Your task to perform on an android device: Open internet settings Image 0: 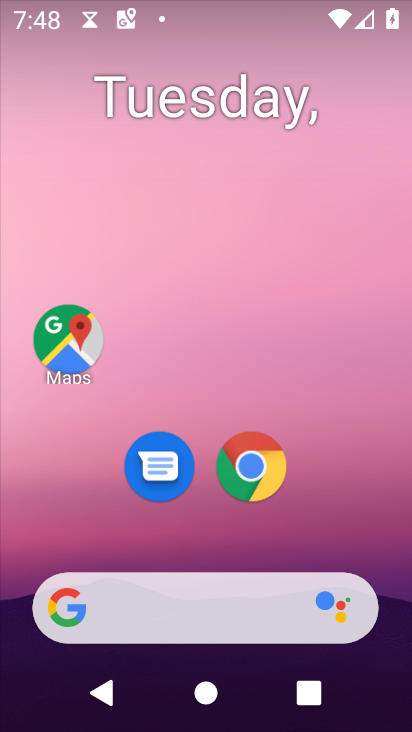
Step 0: press home button
Your task to perform on an android device: Open internet settings Image 1: 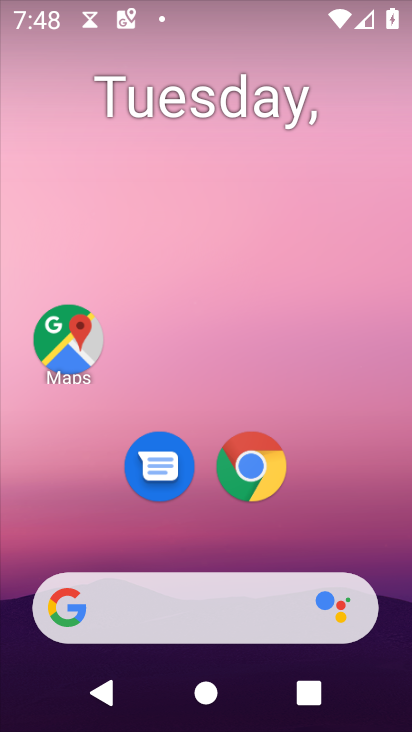
Step 1: drag from (211, 542) to (209, 38)
Your task to perform on an android device: Open internet settings Image 2: 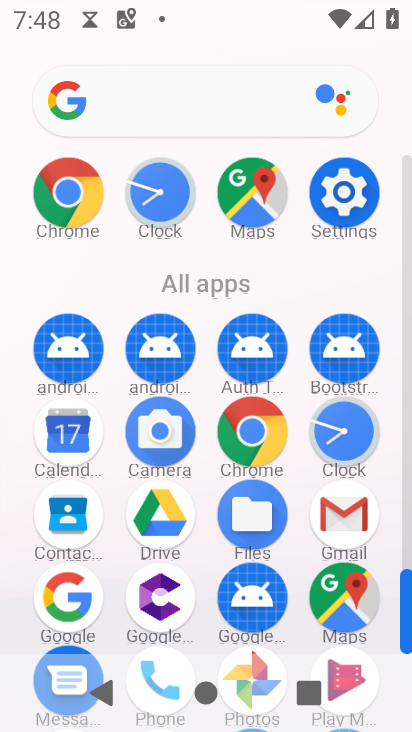
Step 2: click (344, 184)
Your task to perform on an android device: Open internet settings Image 3: 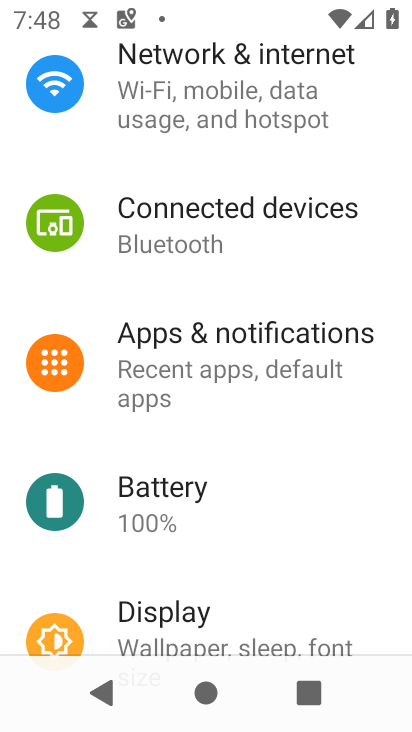
Step 3: click (201, 109)
Your task to perform on an android device: Open internet settings Image 4: 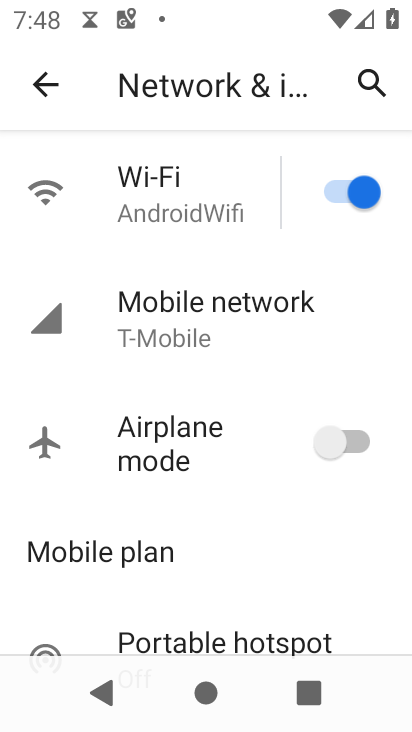
Step 4: drag from (210, 577) to (218, 103)
Your task to perform on an android device: Open internet settings Image 5: 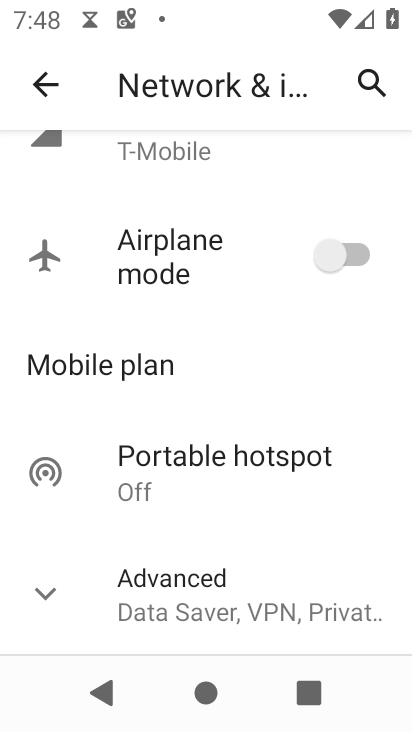
Step 5: click (57, 601)
Your task to perform on an android device: Open internet settings Image 6: 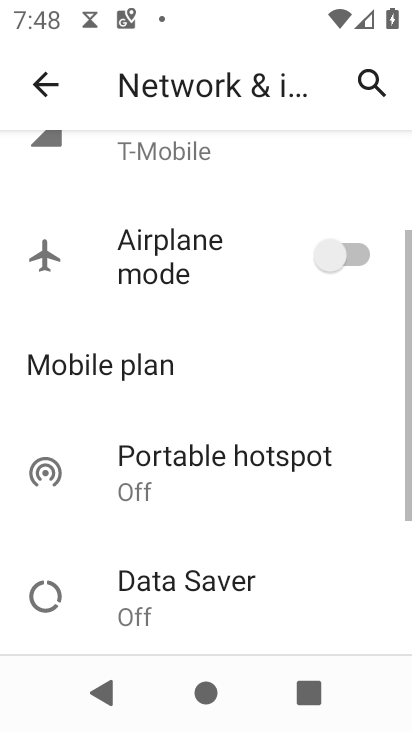
Step 6: task complete